Your task to perform on an android device: See recent photos Image 0: 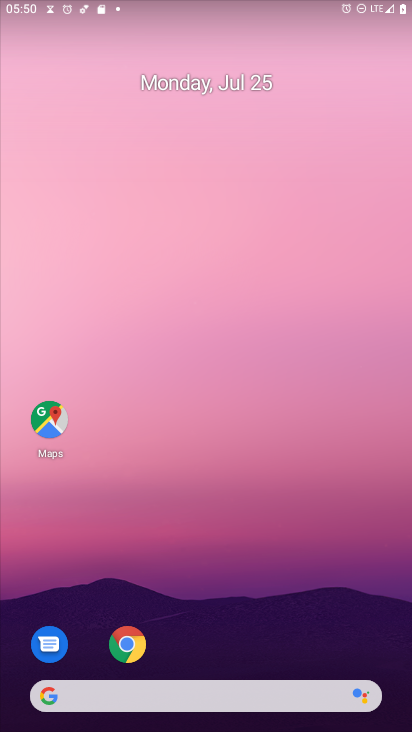
Step 0: press home button
Your task to perform on an android device: See recent photos Image 1: 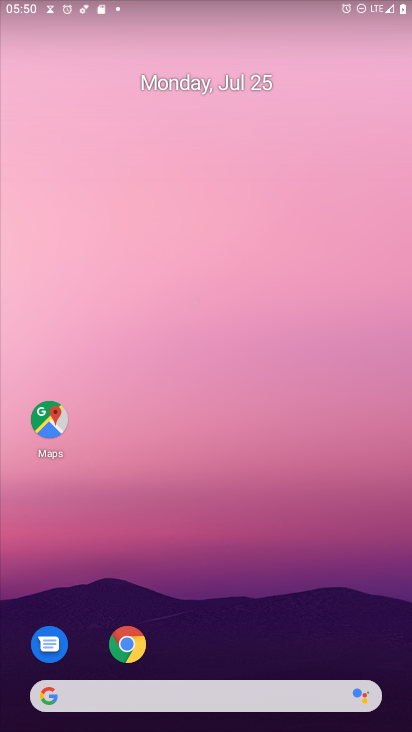
Step 1: drag from (246, 634) to (268, 216)
Your task to perform on an android device: See recent photos Image 2: 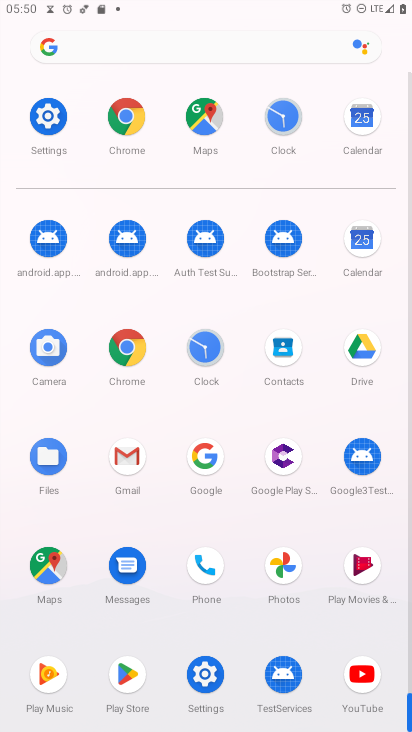
Step 2: click (287, 561)
Your task to perform on an android device: See recent photos Image 3: 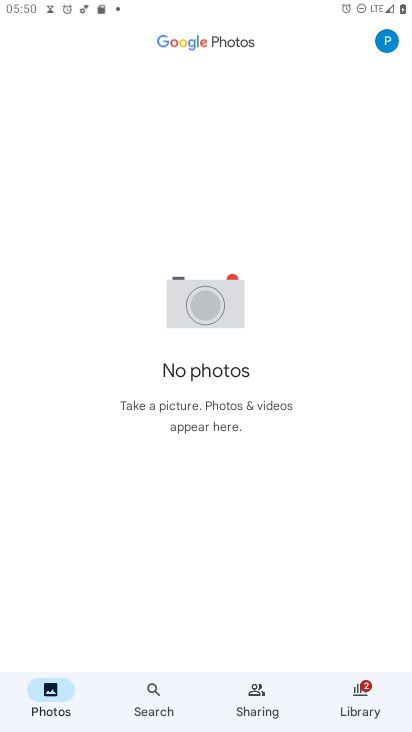
Step 3: task complete